Your task to perform on an android device: turn notification dots off Image 0: 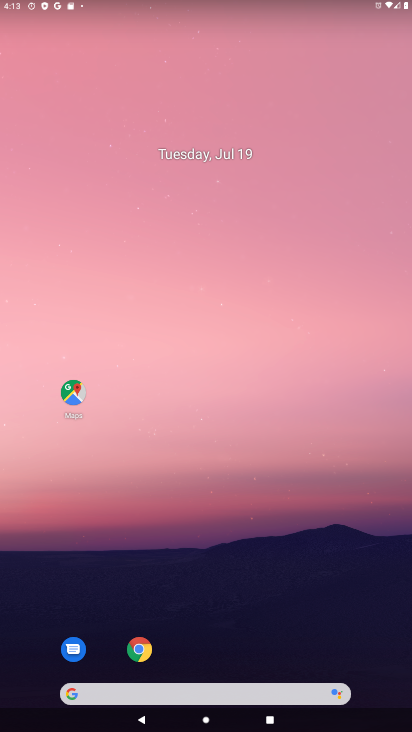
Step 0: drag from (364, 612) to (278, 68)
Your task to perform on an android device: turn notification dots off Image 1: 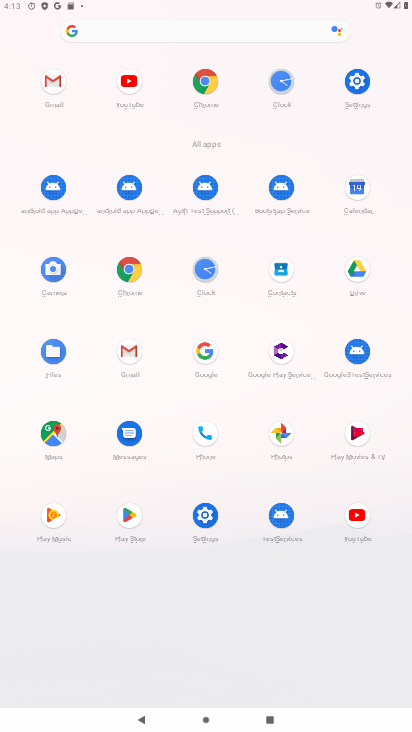
Step 1: click (358, 78)
Your task to perform on an android device: turn notification dots off Image 2: 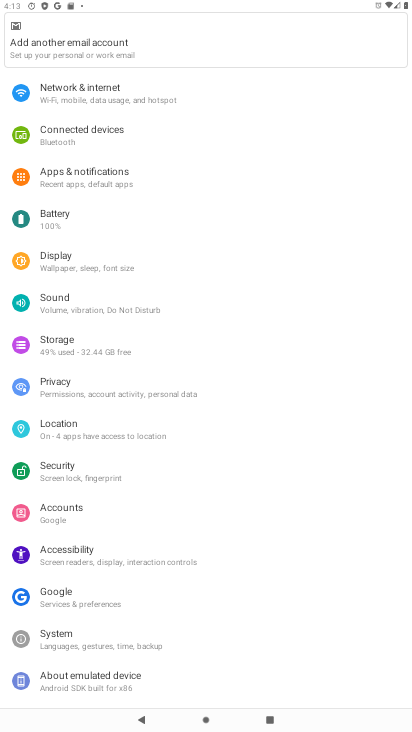
Step 2: click (131, 177)
Your task to perform on an android device: turn notification dots off Image 3: 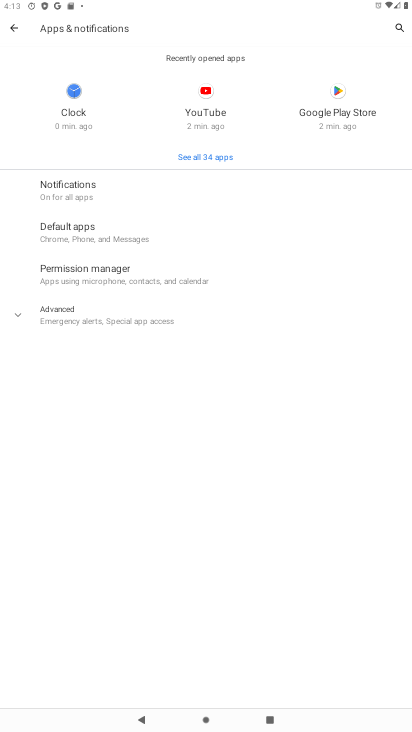
Step 3: click (97, 196)
Your task to perform on an android device: turn notification dots off Image 4: 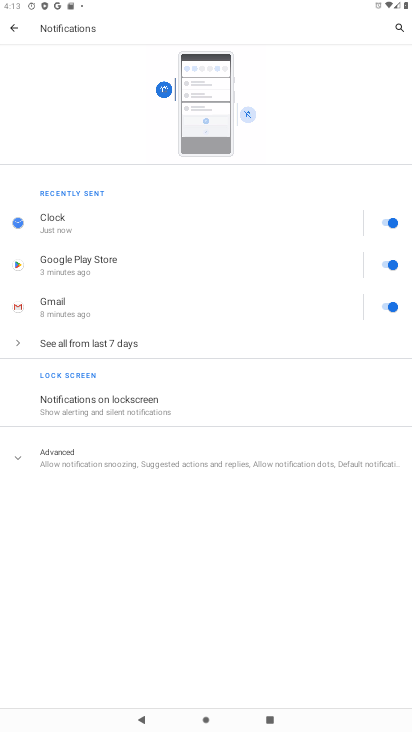
Step 4: click (138, 461)
Your task to perform on an android device: turn notification dots off Image 5: 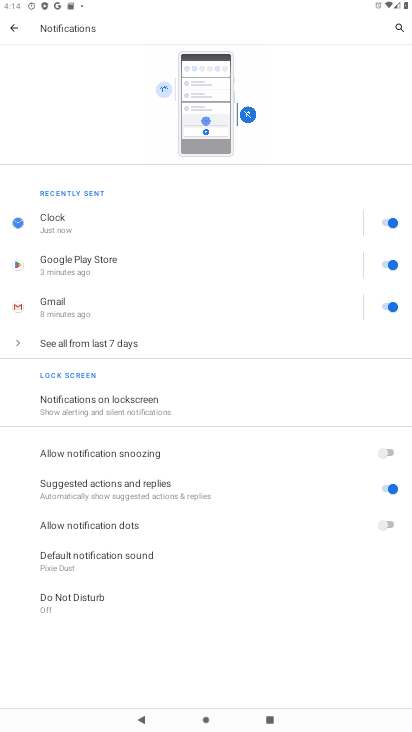
Step 5: task complete